Your task to perform on an android device: Go to location settings Image 0: 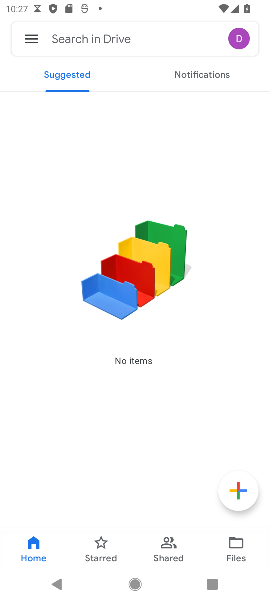
Step 0: press home button
Your task to perform on an android device: Go to location settings Image 1: 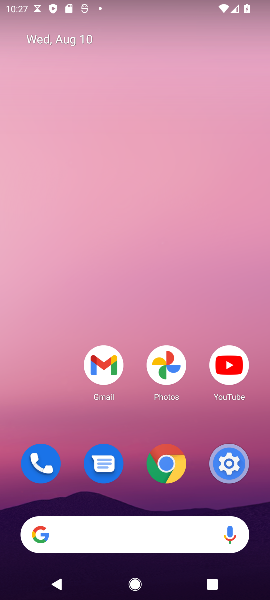
Step 1: click (235, 465)
Your task to perform on an android device: Go to location settings Image 2: 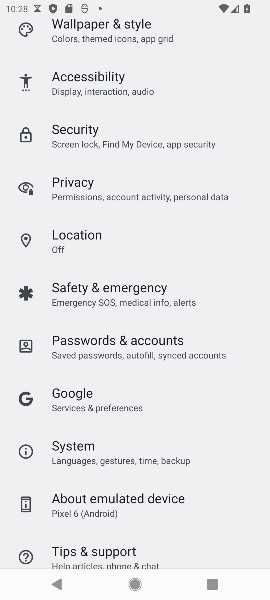
Step 2: click (61, 240)
Your task to perform on an android device: Go to location settings Image 3: 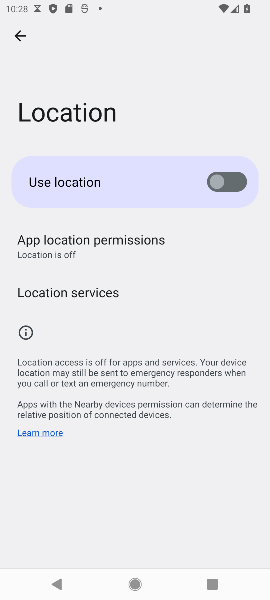
Step 3: task complete